Your task to perform on an android device: turn off airplane mode Image 0: 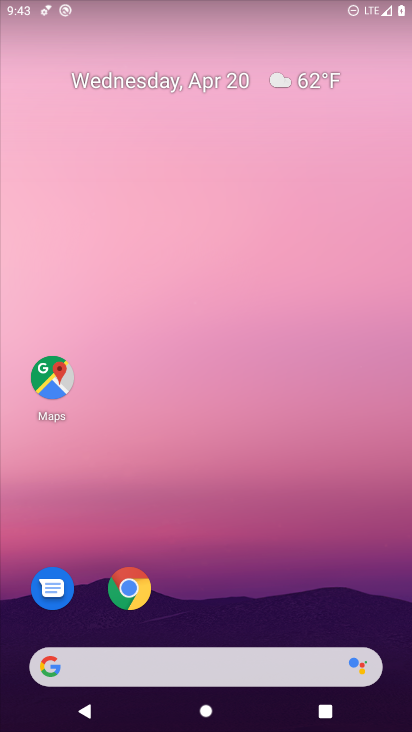
Step 0: drag from (199, 627) to (240, 92)
Your task to perform on an android device: turn off airplane mode Image 1: 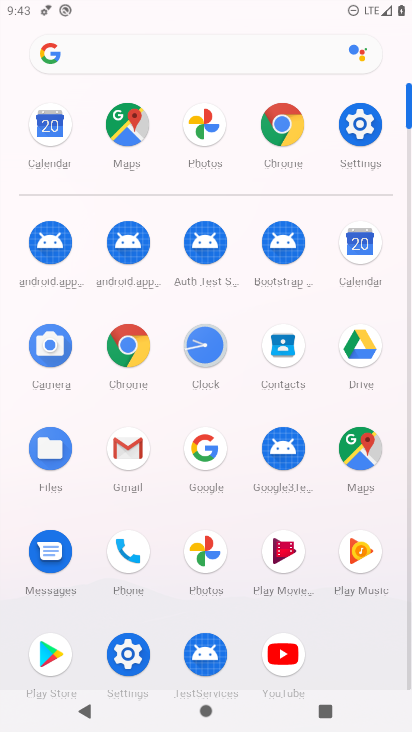
Step 1: click (363, 110)
Your task to perform on an android device: turn off airplane mode Image 2: 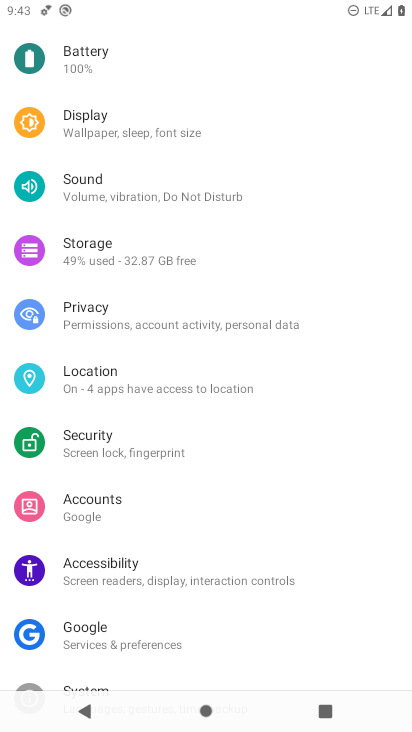
Step 2: drag from (125, 97) to (102, 558)
Your task to perform on an android device: turn off airplane mode Image 3: 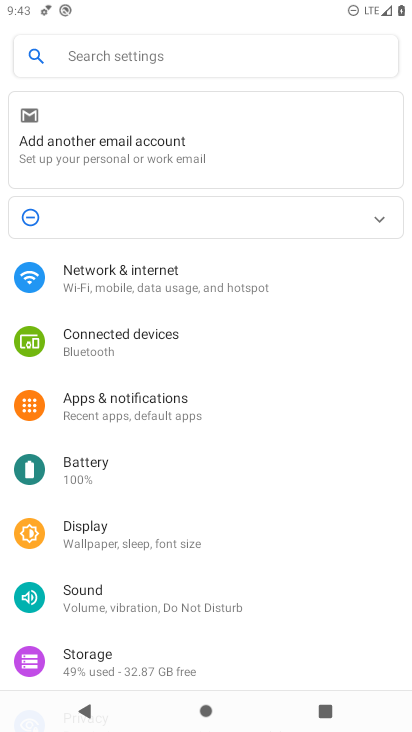
Step 3: click (166, 276)
Your task to perform on an android device: turn off airplane mode Image 4: 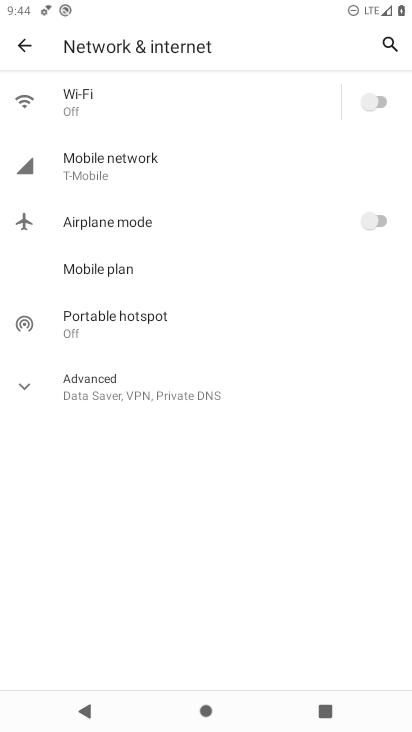
Step 4: task complete